Your task to perform on an android device: Do I have any events this weekend? Image 0: 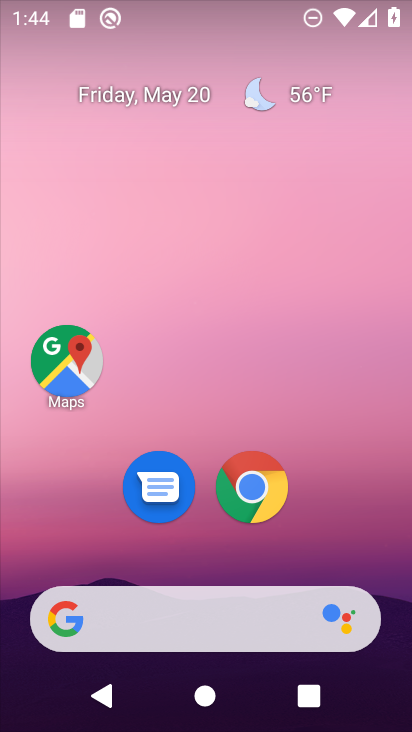
Step 0: press home button
Your task to perform on an android device: Do I have any events this weekend? Image 1: 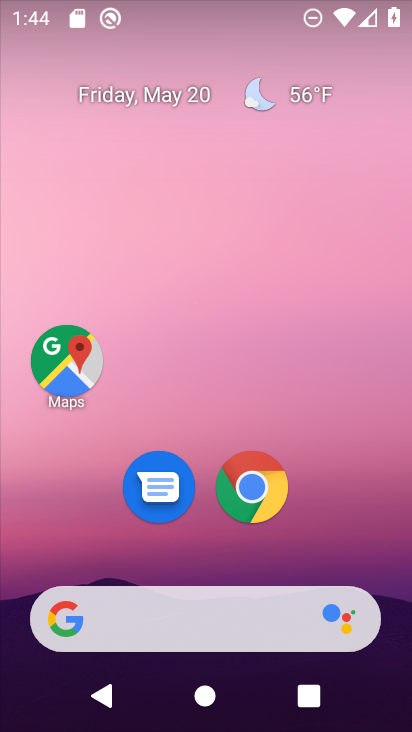
Step 1: drag from (202, 563) to (243, 157)
Your task to perform on an android device: Do I have any events this weekend? Image 2: 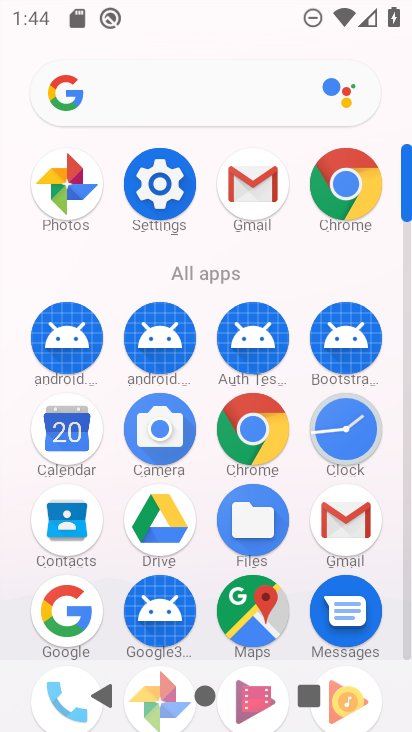
Step 2: click (60, 429)
Your task to perform on an android device: Do I have any events this weekend? Image 3: 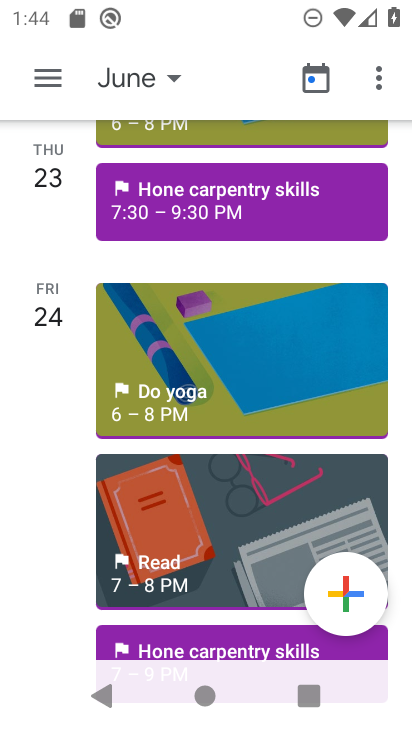
Step 3: click (171, 75)
Your task to perform on an android device: Do I have any events this weekend? Image 4: 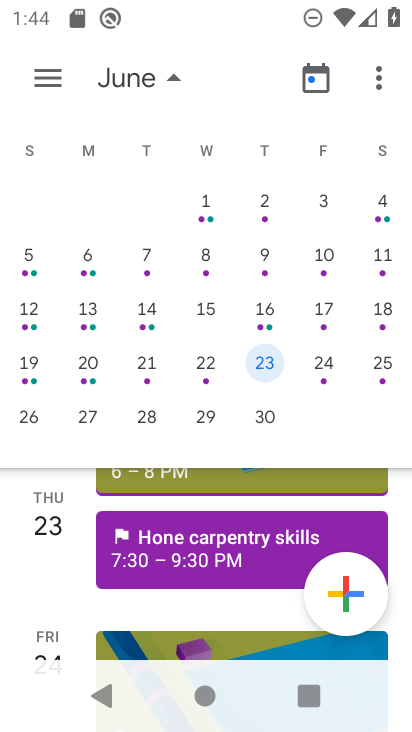
Step 4: drag from (42, 325) to (337, 323)
Your task to perform on an android device: Do I have any events this weekend? Image 5: 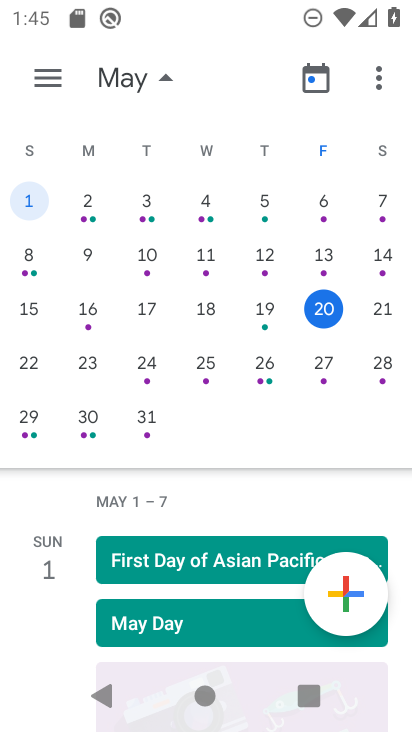
Step 5: click (329, 307)
Your task to perform on an android device: Do I have any events this weekend? Image 6: 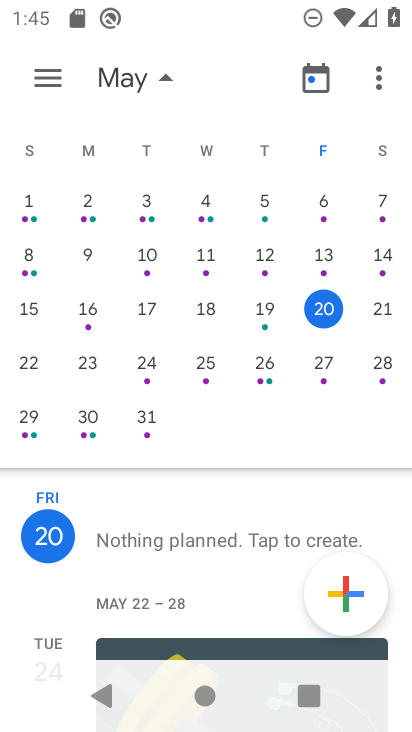
Step 6: click (155, 78)
Your task to perform on an android device: Do I have any events this weekend? Image 7: 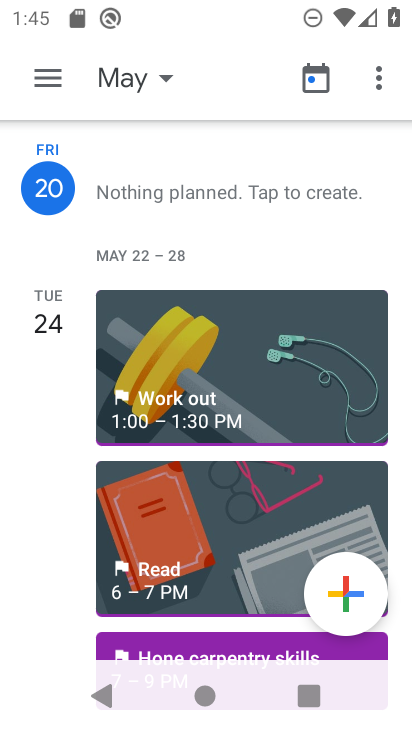
Step 7: task complete